Your task to perform on an android device: What's the weather going to be this weekend? Image 0: 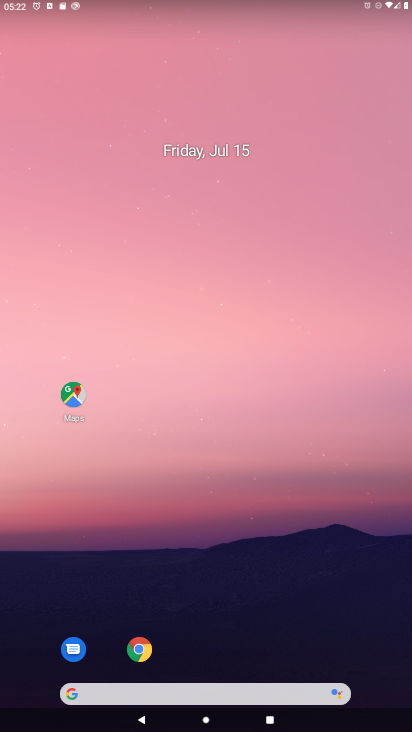
Step 0: drag from (79, 258) to (374, 261)
Your task to perform on an android device: What's the weather going to be this weekend? Image 1: 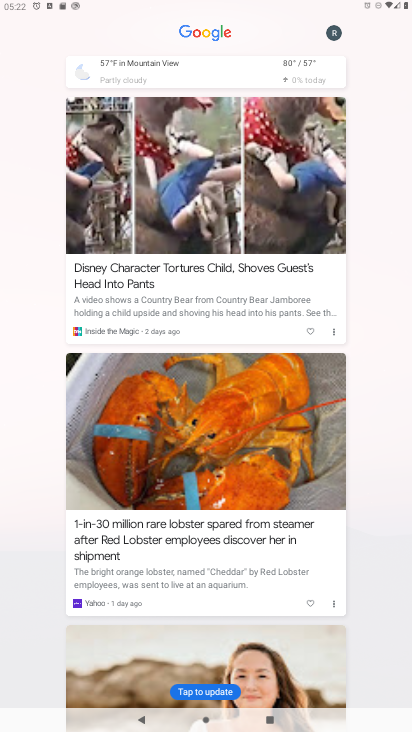
Step 1: click (290, 62)
Your task to perform on an android device: What's the weather going to be this weekend? Image 2: 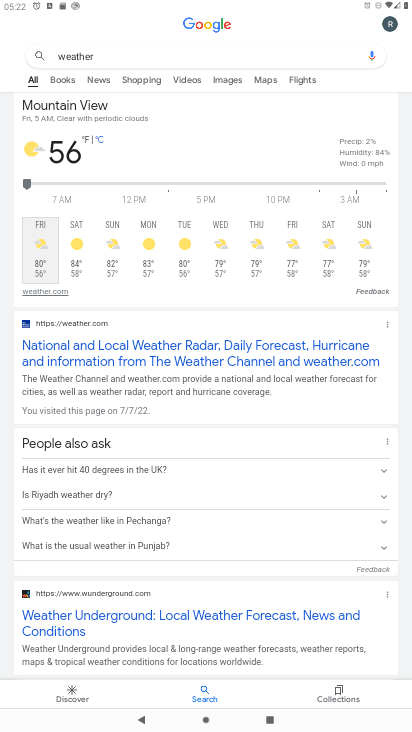
Step 2: task complete